Your task to perform on an android device: Add "usb-a" to the cart on target Image 0: 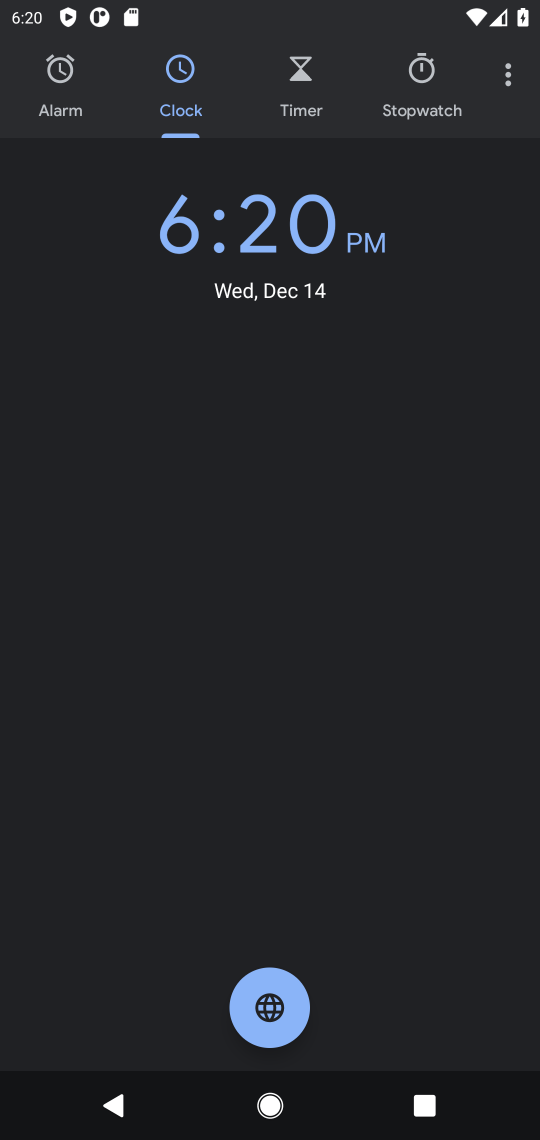
Step 0: press home button
Your task to perform on an android device: Add "usb-a" to the cart on target Image 1: 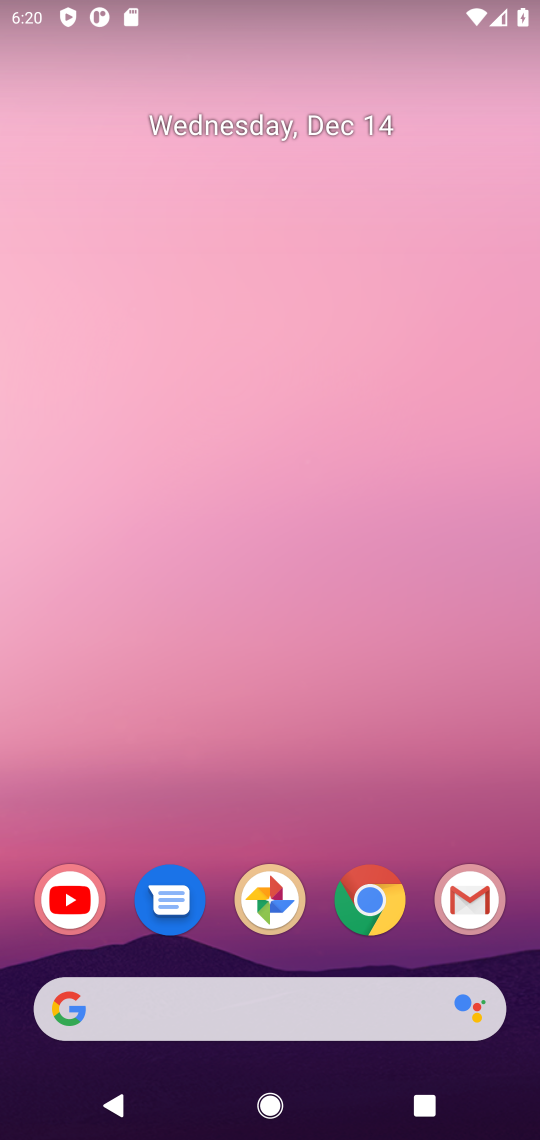
Step 1: click (244, 1005)
Your task to perform on an android device: Add "usb-a" to the cart on target Image 2: 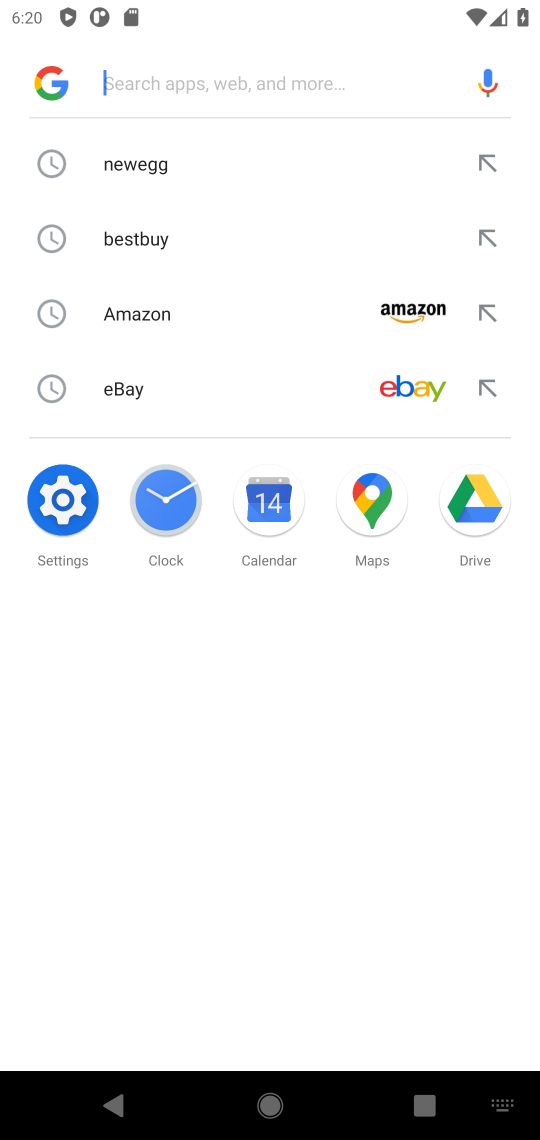
Step 2: type "target"
Your task to perform on an android device: Add "usb-a" to the cart on target Image 3: 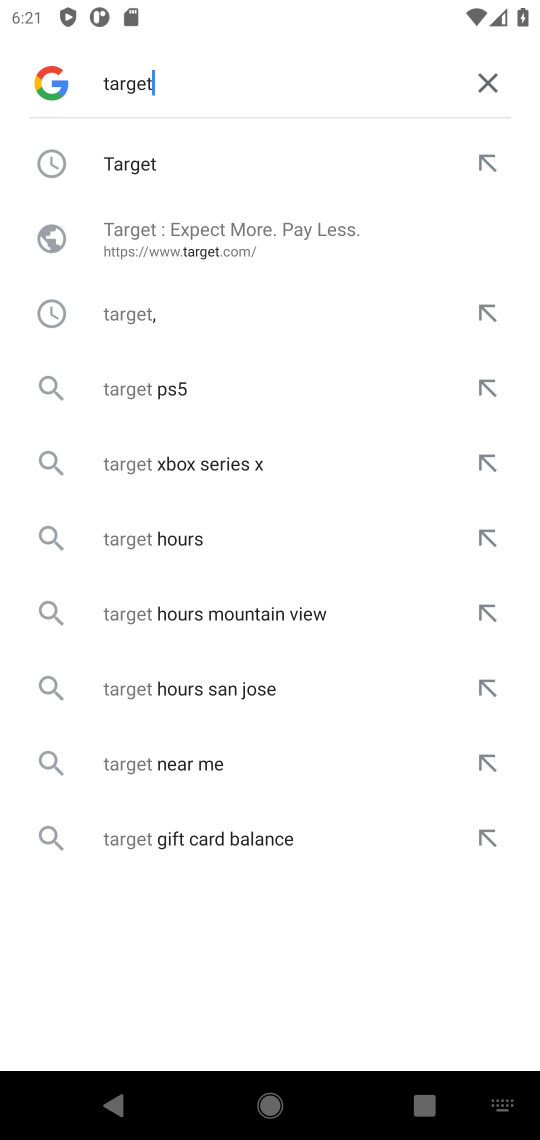
Step 3: click (123, 172)
Your task to perform on an android device: Add "usb-a" to the cart on target Image 4: 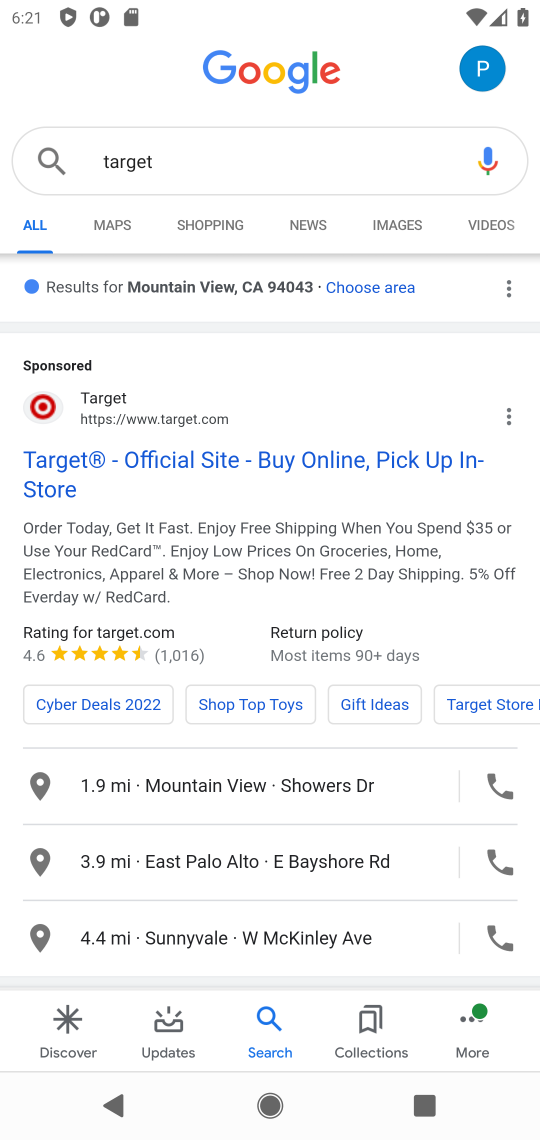
Step 4: click (122, 464)
Your task to perform on an android device: Add "usb-a" to the cart on target Image 5: 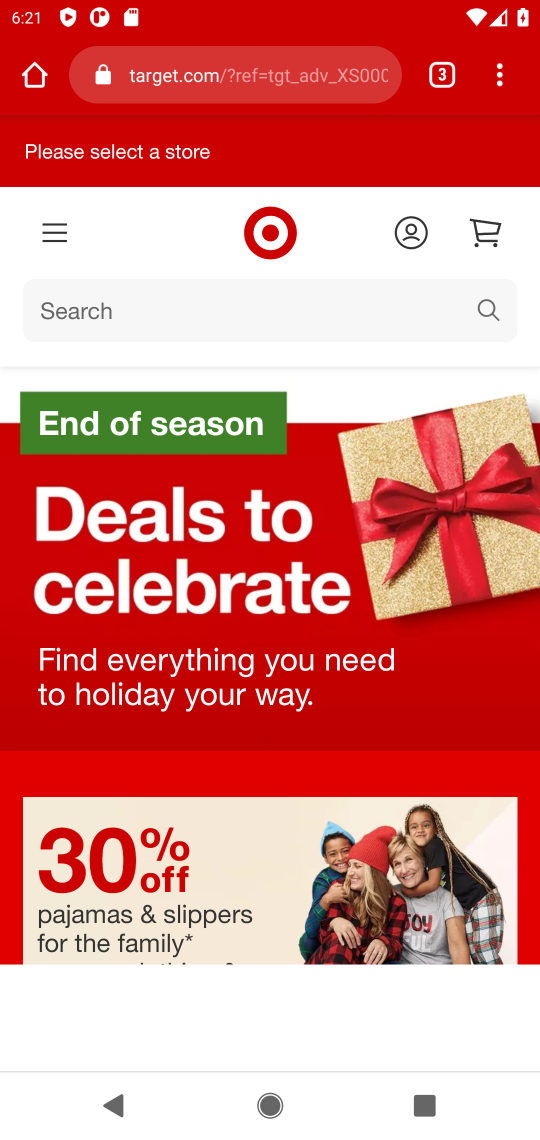
Step 5: click (204, 322)
Your task to perform on an android device: Add "usb-a" to the cart on target Image 6: 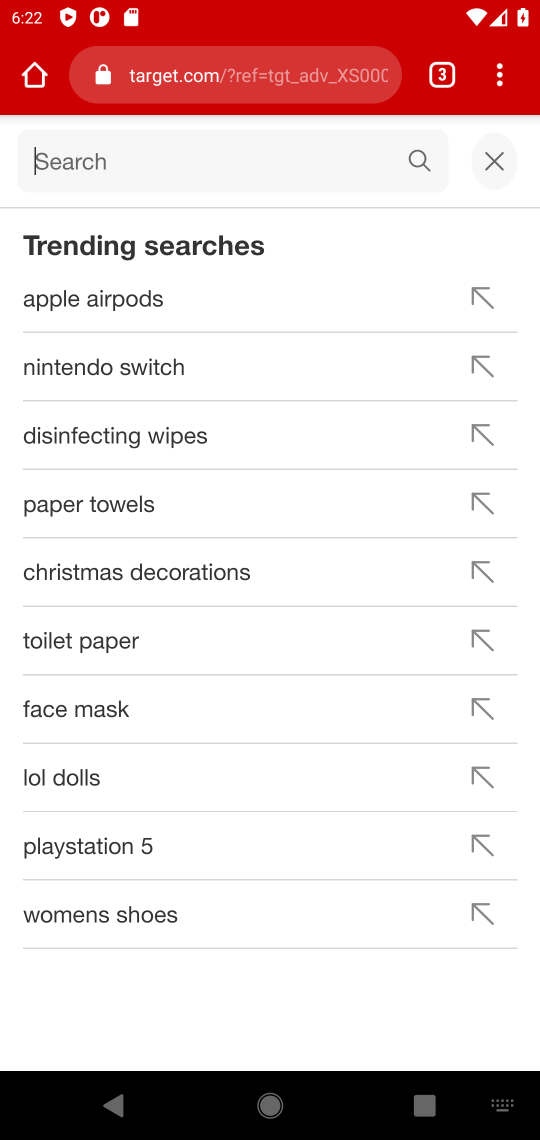
Step 6: type "usb-a"
Your task to perform on an android device: Add "usb-a" to the cart on target Image 7: 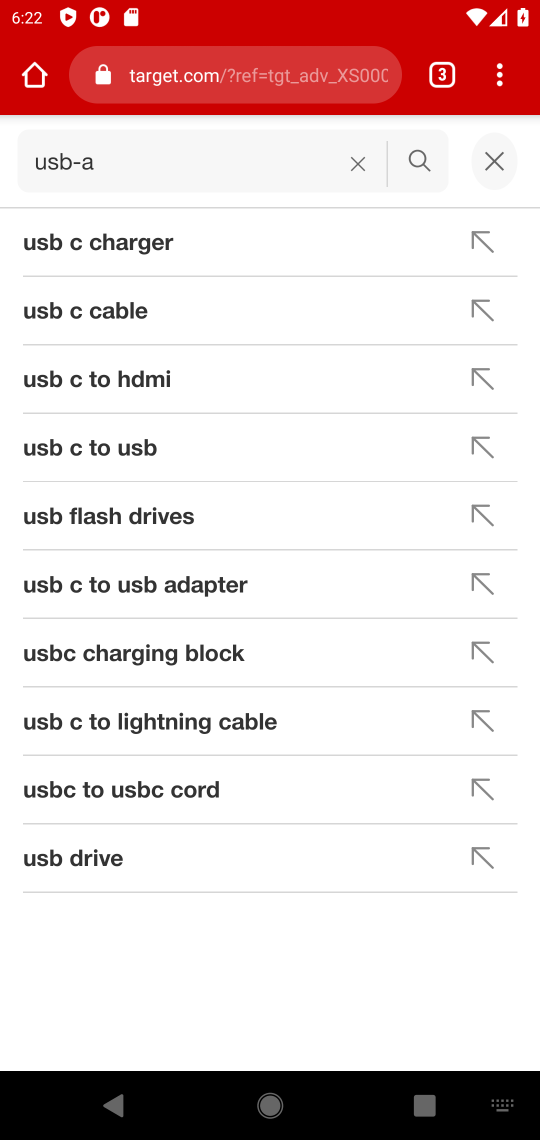
Step 7: click (400, 172)
Your task to perform on an android device: Add "usb-a" to the cart on target Image 8: 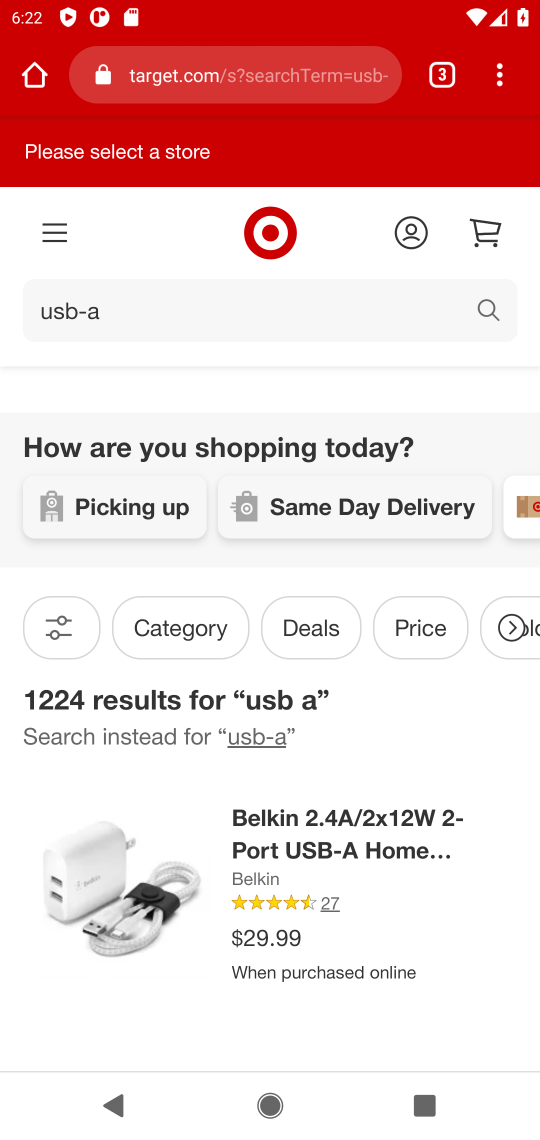
Step 8: click (273, 823)
Your task to perform on an android device: Add "usb-a" to the cart on target Image 9: 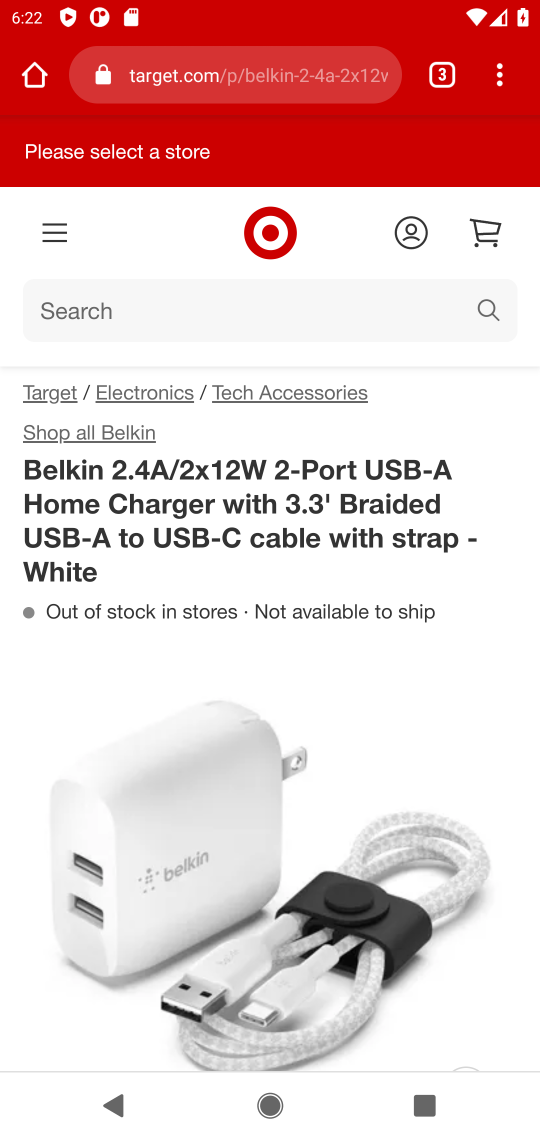
Step 9: drag from (287, 937) to (287, 599)
Your task to perform on an android device: Add "usb-a" to the cart on target Image 10: 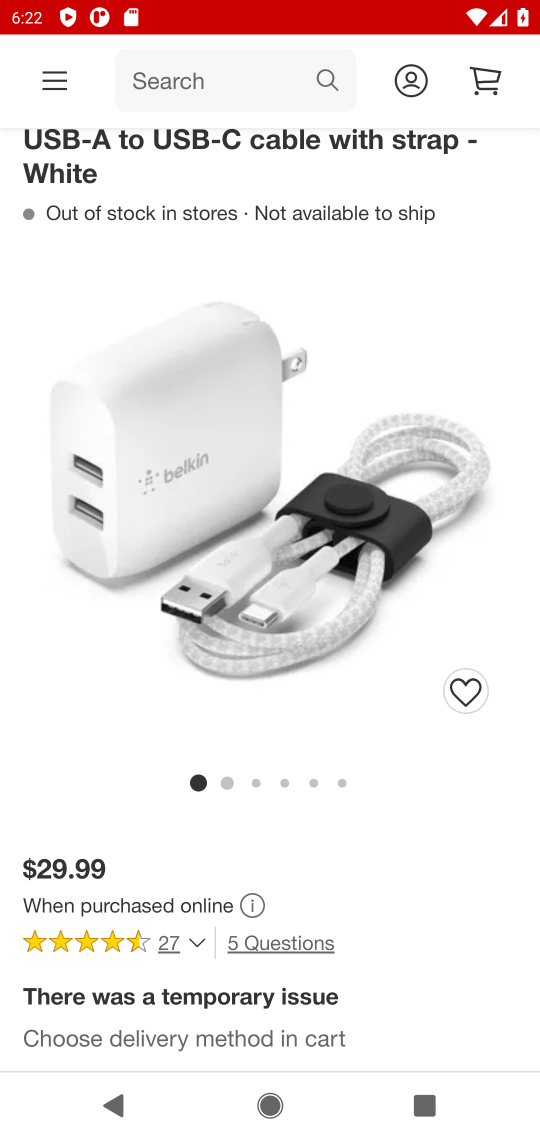
Step 10: drag from (156, 912) to (180, 606)
Your task to perform on an android device: Add "usb-a" to the cart on target Image 11: 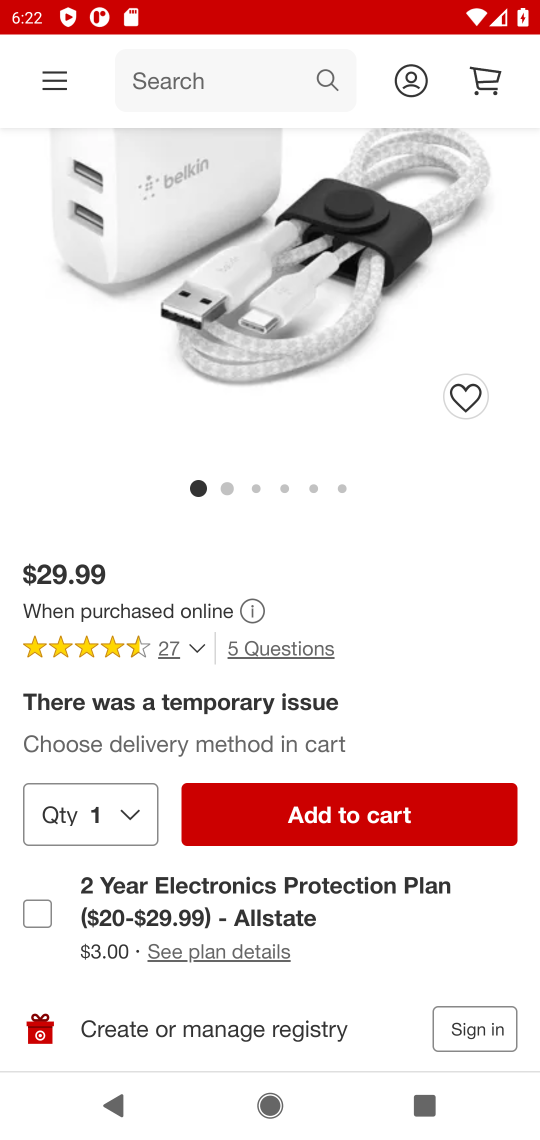
Step 11: click (345, 827)
Your task to perform on an android device: Add "usb-a" to the cart on target Image 12: 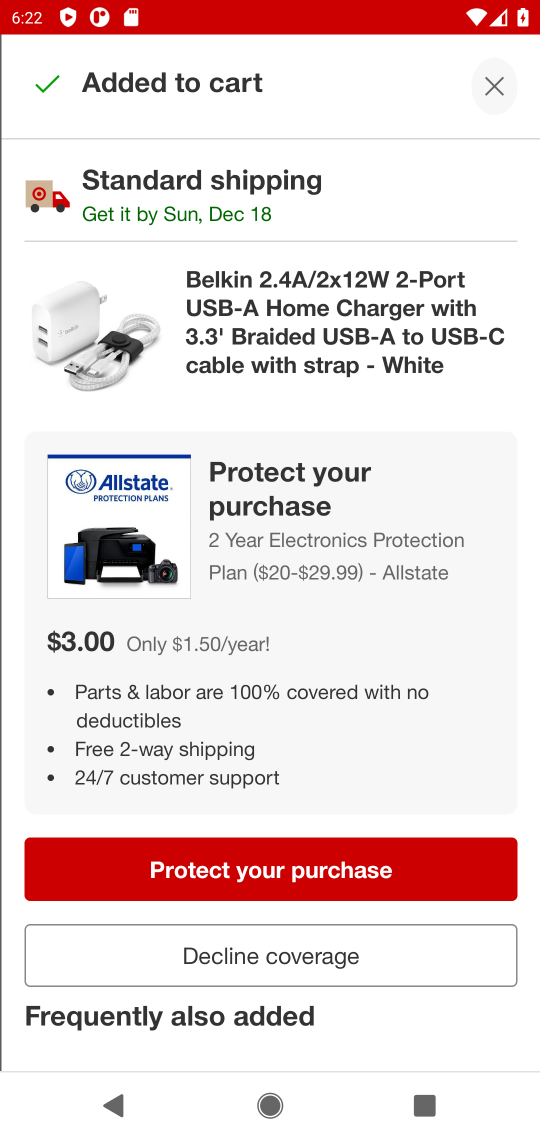
Step 12: task complete